Your task to perform on an android device: turn smart compose on in the gmail app Image 0: 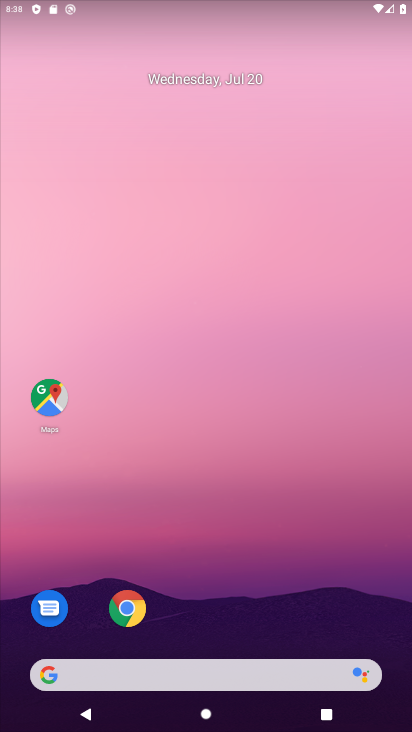
Step 0: drag from (160, 674) to (57, 261)
Your task to perform on an android device: turn smart compose on in the gmail app Image 1: 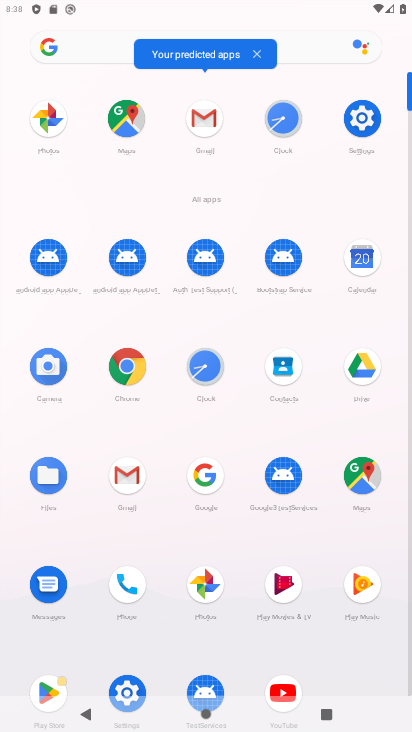
Step 1: click (124, 478)
Your task to perform on an android device: turn smart compose on in the gmail app Image 2: 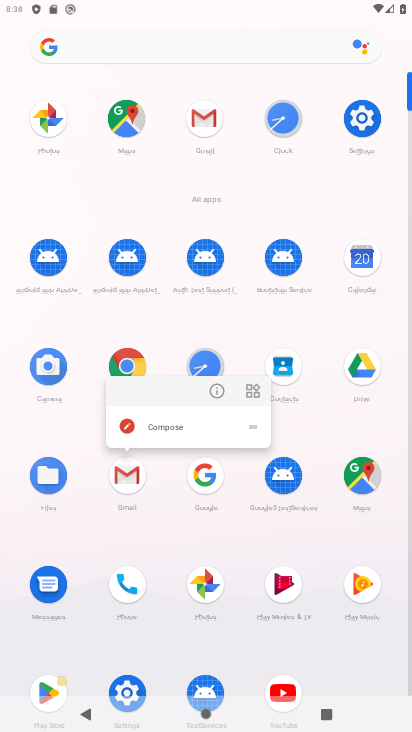
Step 2: click (124, 478)
Your task to perform on an android device: turn smart compose on in the gmail app Image 3: 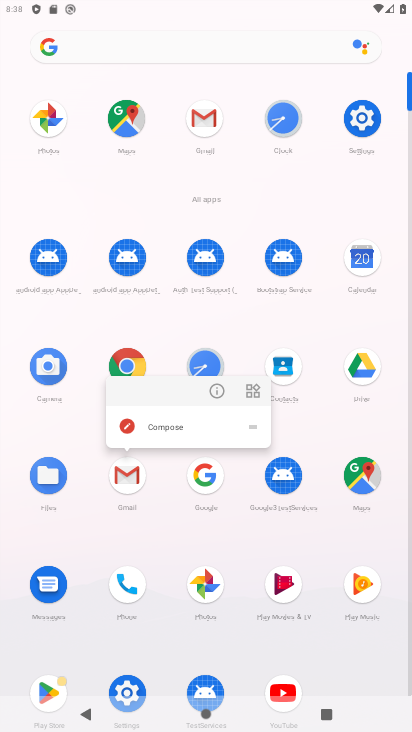
Step 3: click (124, 478)
Your task to perform on an android device: turn smart compose on in the gmail app Image 4: 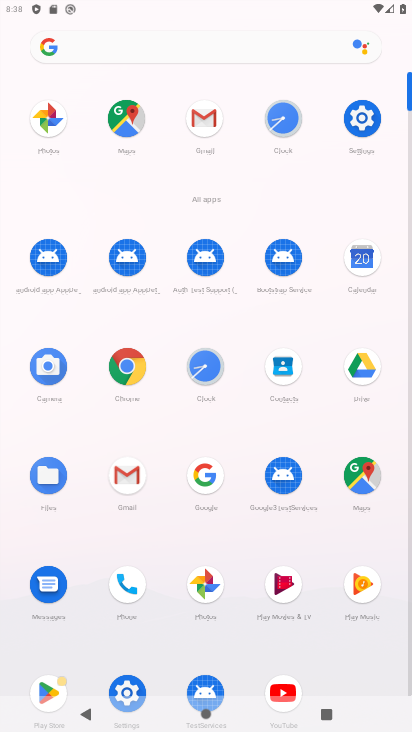
Step 4: click (124, 478)
Your task to perform on an android device: turn smart compose on in the gmail app Image 5: 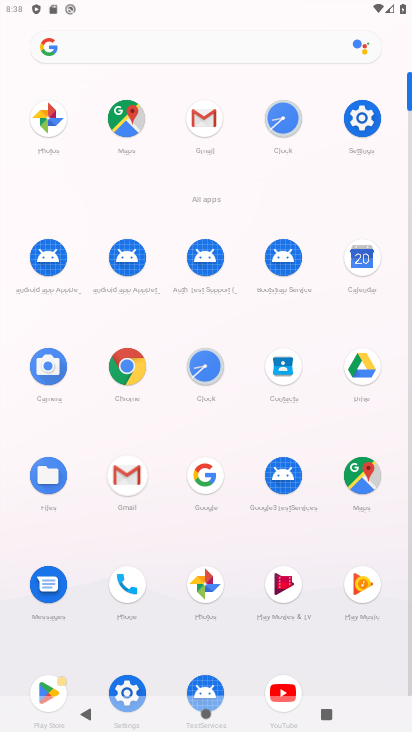
Step 5: click (124, 478)
Your task to perform on an android device: turn smart compose on in the gmail app Image 6: 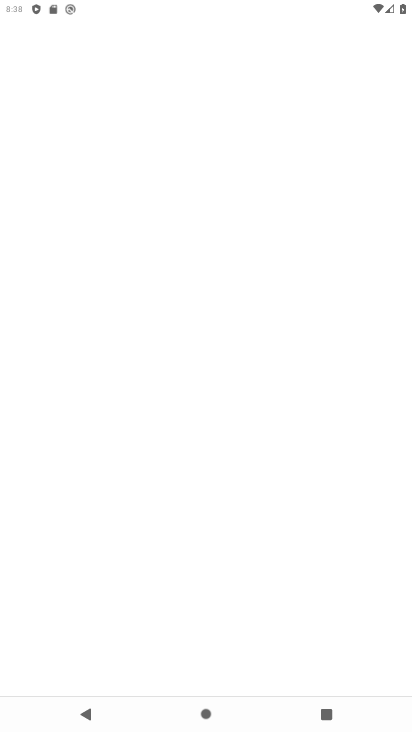
Step 6: click (124, 478)
Your task to perform on an android device: turn smart compose on in the gmail app Image 7: 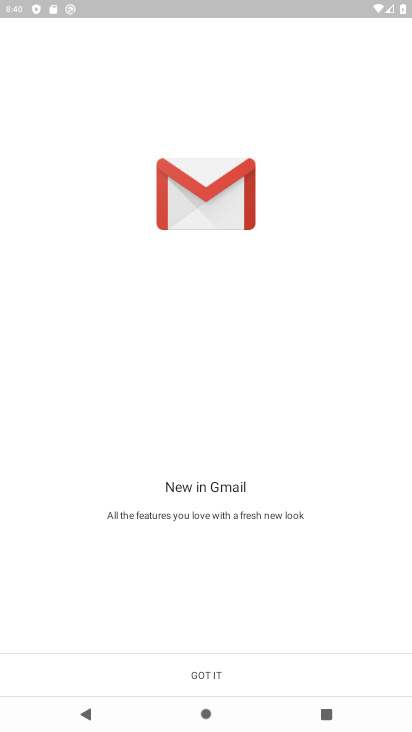
Step 7: click (147, 672)
Your task to perform on an android device: turn smart compose on in the gmail app Image 8: 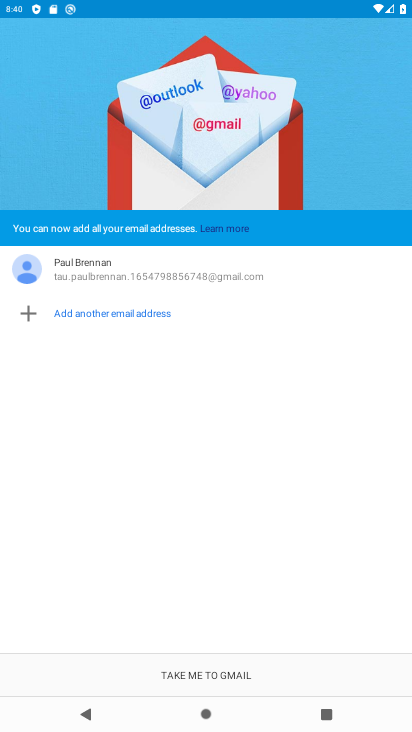
Step 8: click (147, 672)
Your task to perform on an android device: turn smart compose on in the gmail app Image 9: 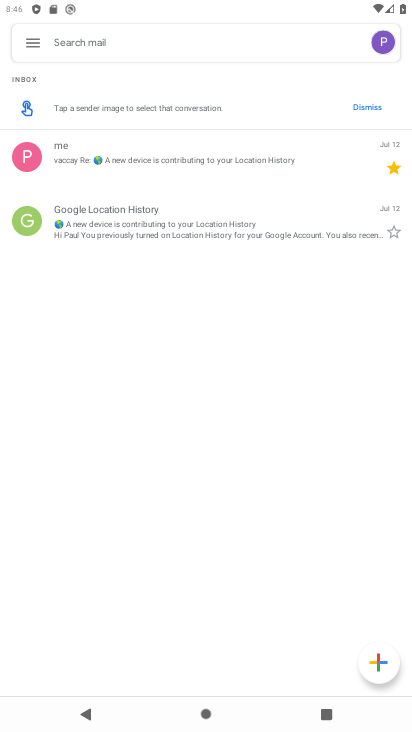
Step 9: click (34, 39)
Your task to perform on an android device: turn smart compose on in the gmail app Image 10: 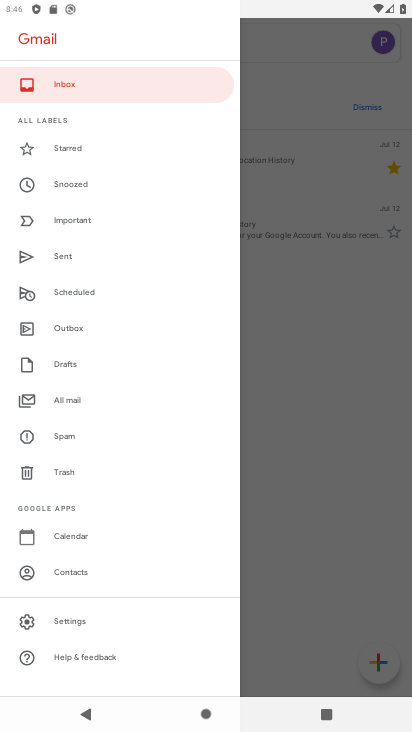
Step 10: click (124, 626)
Your task to perform on an android device: turn smart compose on in the gmail app Image 11: 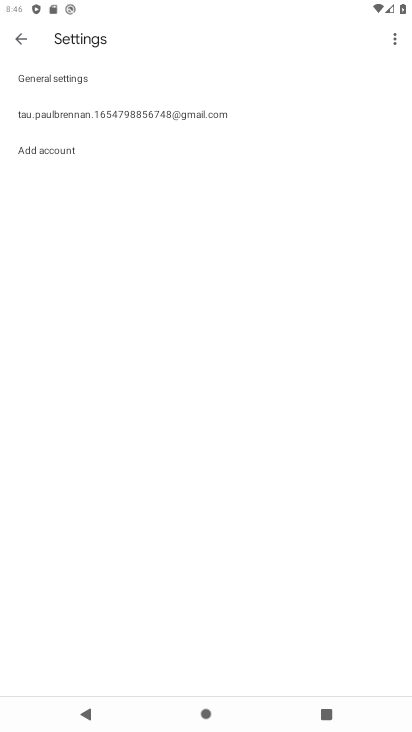
Step 11: click (170, 121)
Your task to perform on an android device: turn smart compose on in the gmail app Image 12: 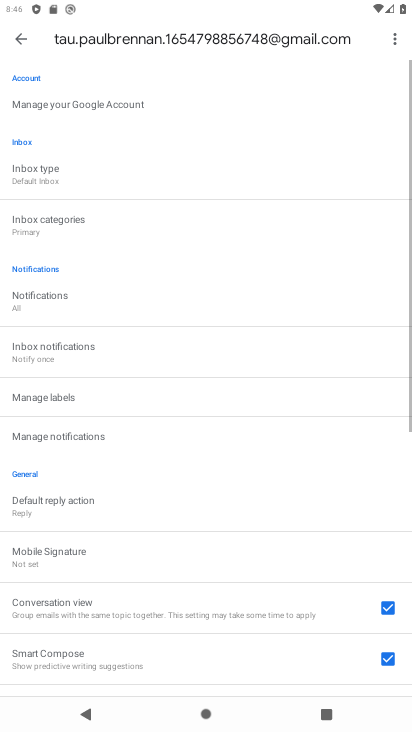
Step 12: task complete